Your task to perform on an android device: Go to privacy settings Image 0: 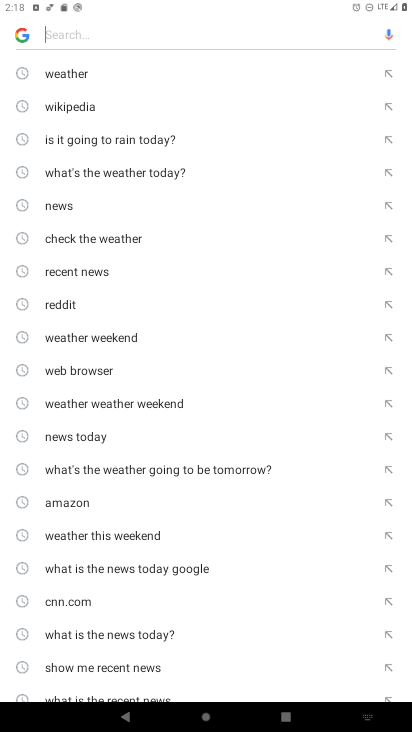
Step 0: press home button
Your task to perform on an android device: Go to privacy settings Image 1: 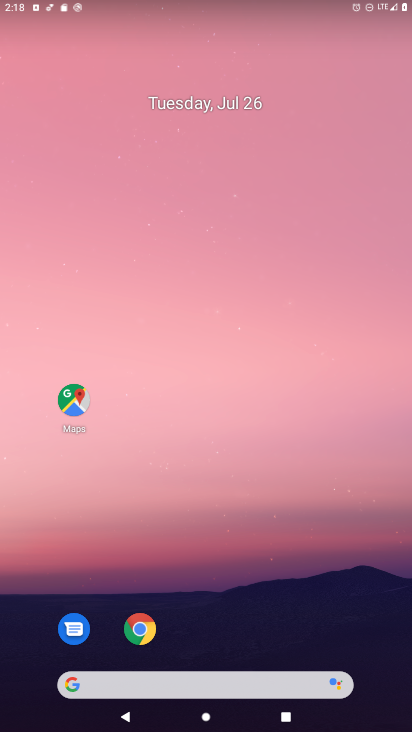
Step 1: drag from (386, 661) to (308, 248)
Your task to perform on an android device: Go to privacy settings Image 2: 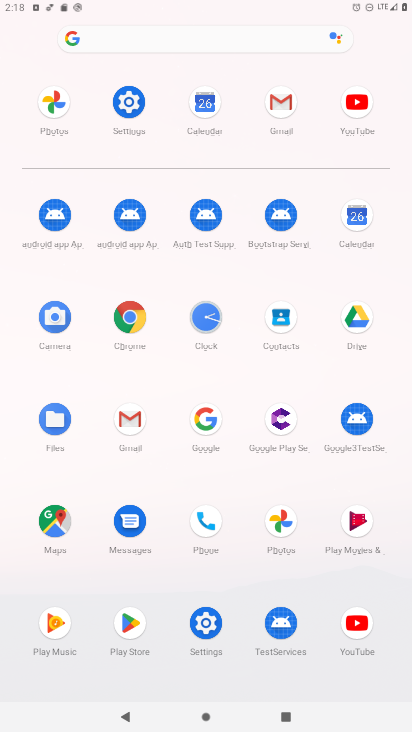
Step 2: click (207, 626)
Your task to perform on an android device: Go to privacy settings Image 3: 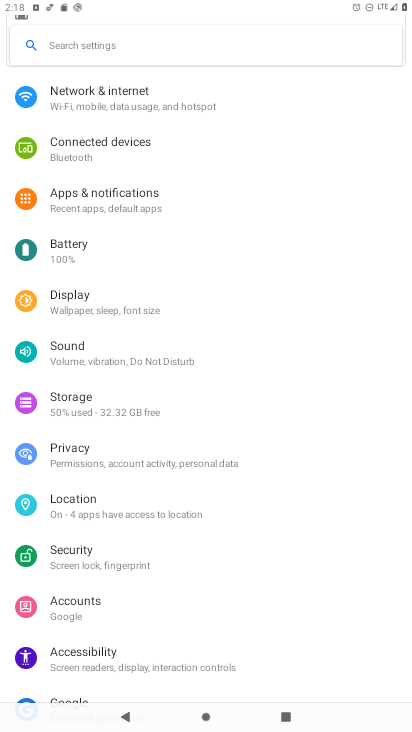
Step 3: click (70, 451)
Your task to perform on an android device: Go to privacy settings Image 4: 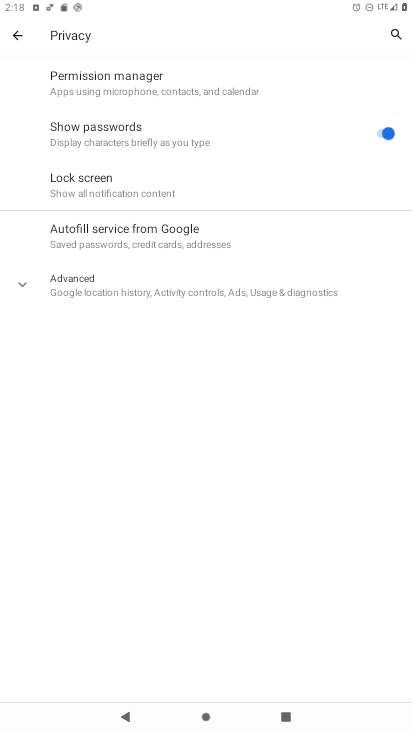
Step 4: click (21, 287)
Your task to perform on an android device: Go to privacy settings Image 5: 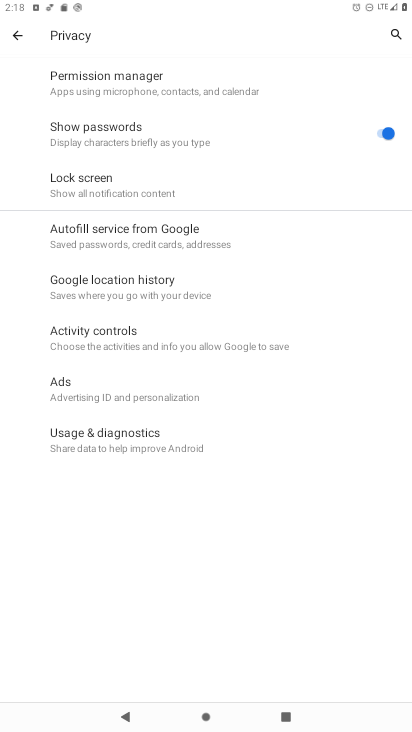
Step 5: task complete